Your task to perform on an android device: Open Youtube and go to the subscriptions tab Image 0: 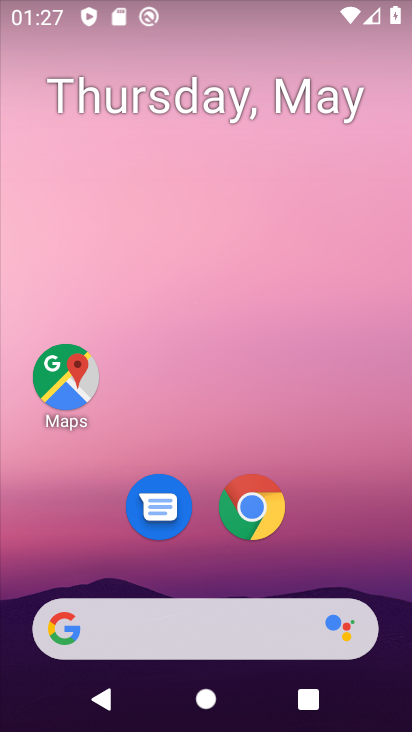
Step 0: drag from (344, 503) to (393, 142)
Your task to perform on an android device: Open Youtube and go to the subscriptions tab Image 1: 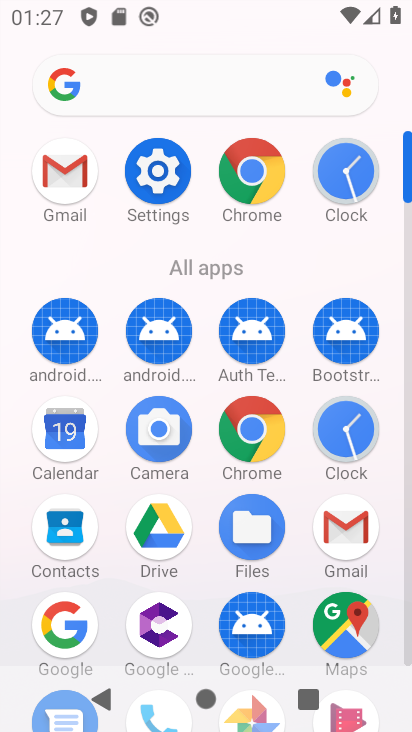
Step 1: drag from (291, 554) to (348, 177)
Your task to perform on an android device: Open Youtube and go to the subscriptions tab Image 2: 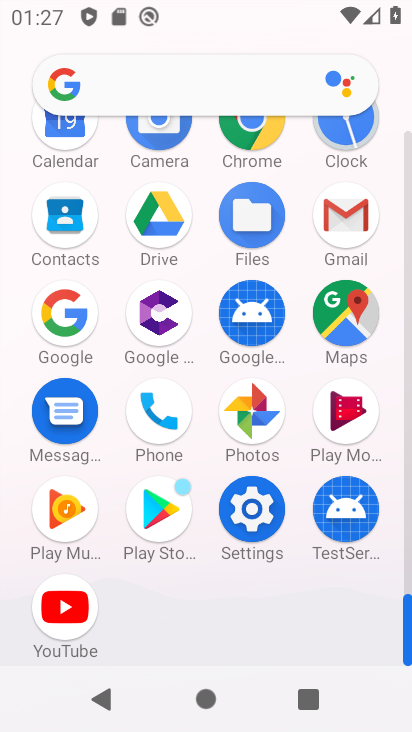
Step 2: click (72, 610)
Your task to perform on an android device: Open Youtube and go to the subscriptions tab Image 3: 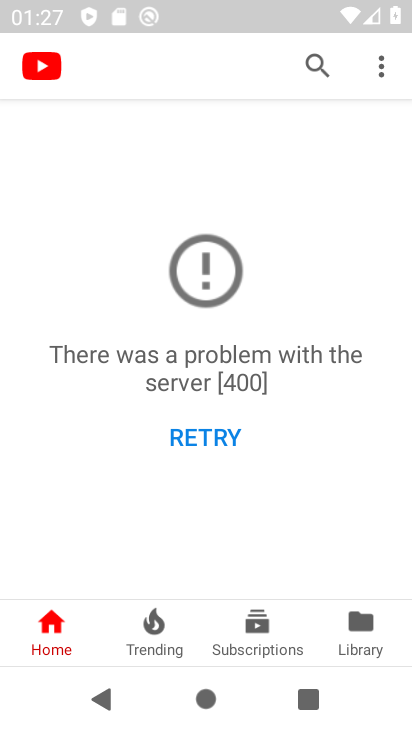
Step 3: click (257, 630)
Your task to perform on an android device: Open Youtube and go to the subscriptions tab Image 4: 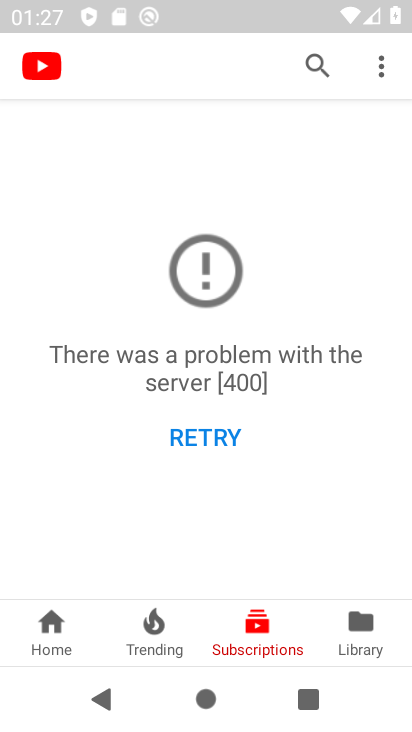
Step 4: task complete